Your task to perform on an android device: change alarm snooze length Image 0: 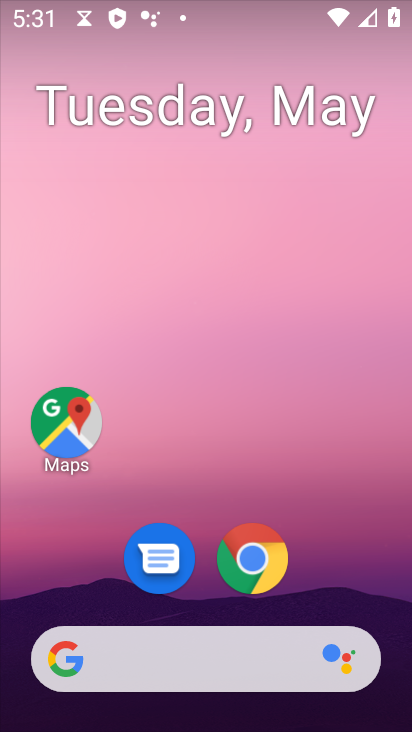
Step 0: drag from (398, 545) to (189, 67)
Your task to perform on an android device: change alarm snooze length Image 1: 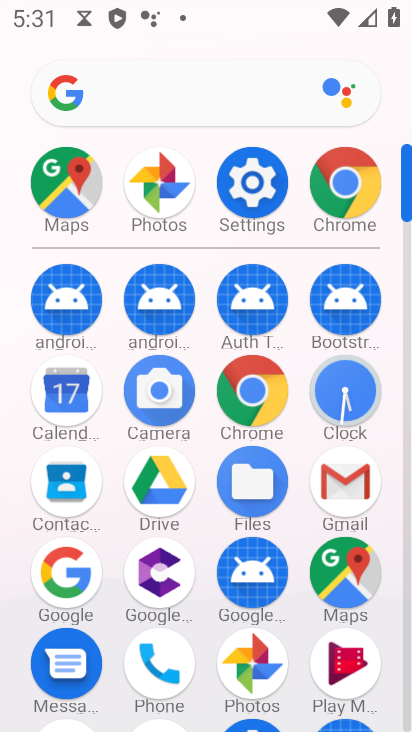
Step 1: click (339, 405)
Your task to perform on an android device: change alarm snooze length Image 2: 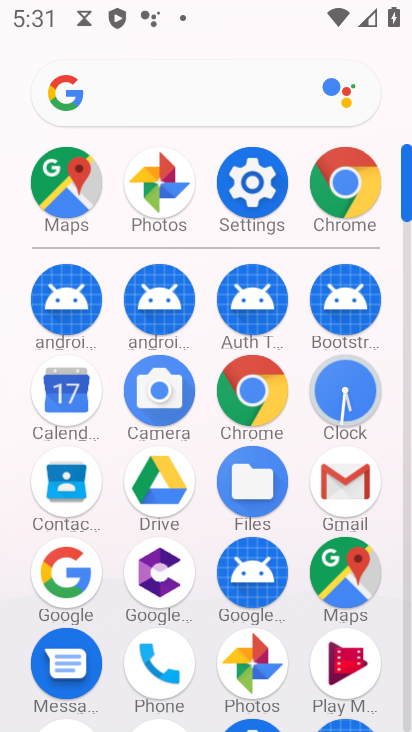
Step 2: click (358, 391)
Your task to perform on an android device: change alarm snooze length Image 3: 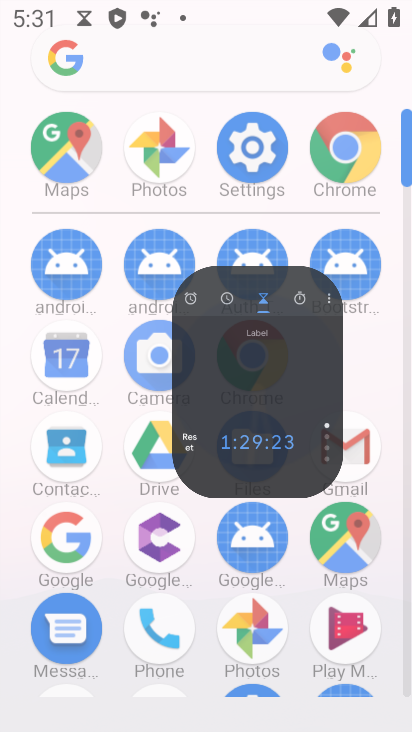
Step 3: click (358, 391)
Your task to perform on an android device: change alarm snooze length Image 4: 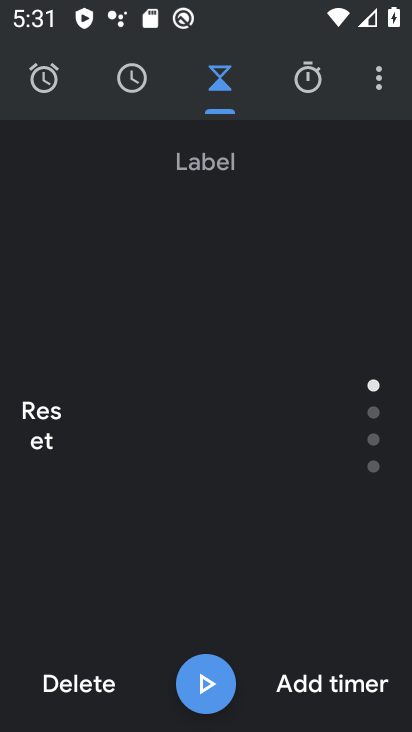
Step 4: click (378, 86)
Your task to perform on an android device: change alarm snooze length Image 5: 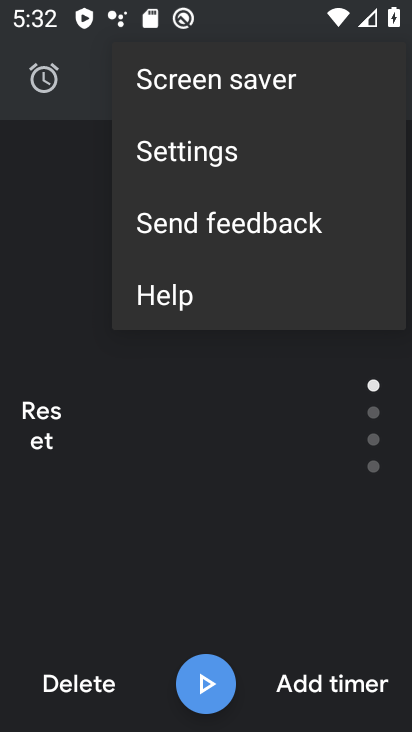
Step 5: click (187, 153)
Your task to perform on an android device: change alarm snooze length Image 6: 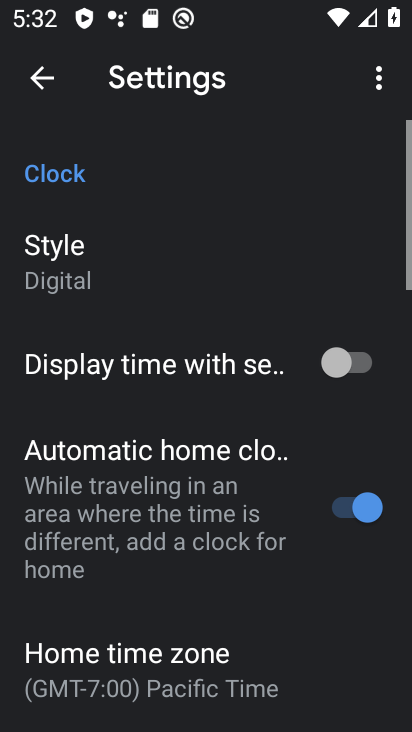
Step 6: drag from (171, 508) to (243, 124)
Your task to perform on an android device: change alarm snooze length Image 7: 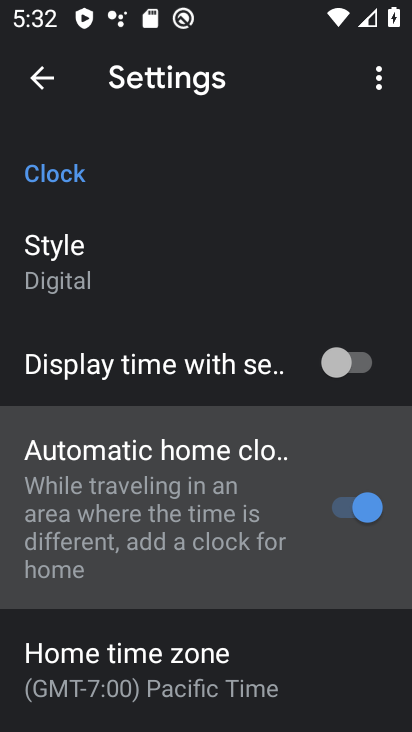
Step 7: drag from (188, 374) to (166, 40)
Your task to perform on an android device: change alarm snooze length Image 8: 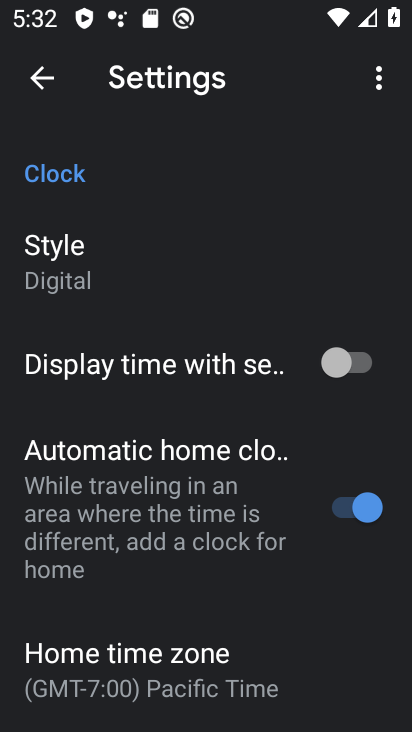
Step 8: drag from (140, 619) to (140, 292)
Your task to perform on an android device: change alarm snooze length Image 9: 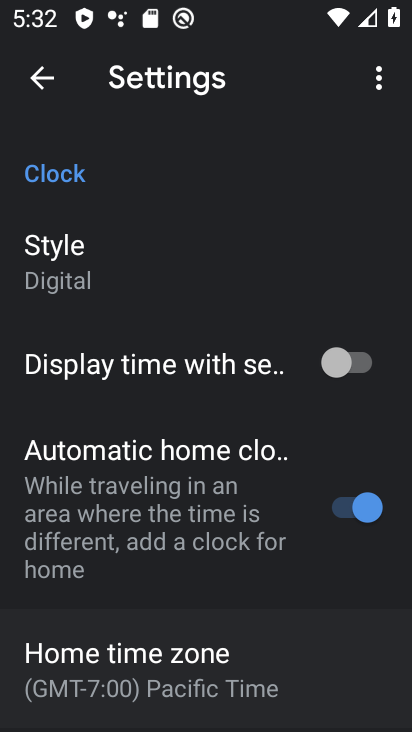
Step 9: drag from (178, 516) to (138, 279)
Your task to perform on an android device: change alarm snooze length Image 10: 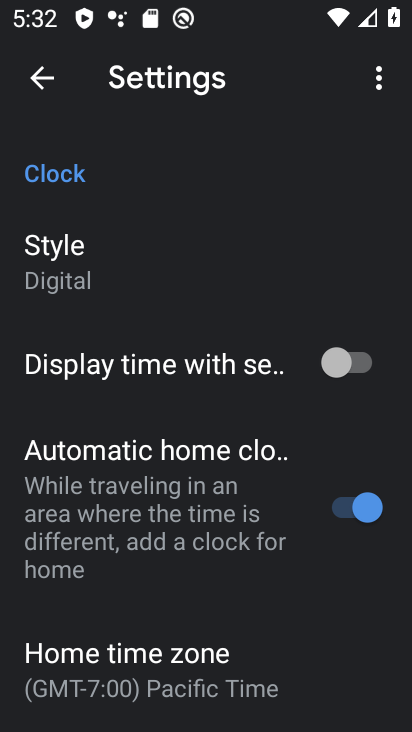
Step 10: drag from (159, 572) to (107, 210)
Your task to perform on an android device: change alarm snooze length Image 11: 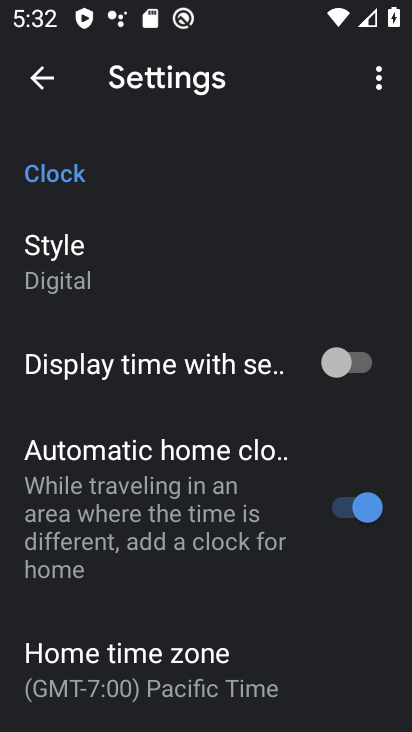
Step 11: drag from (152, 490) to (106, 173)
Your task to perform on an android device: change alarm snooze length Image 12: 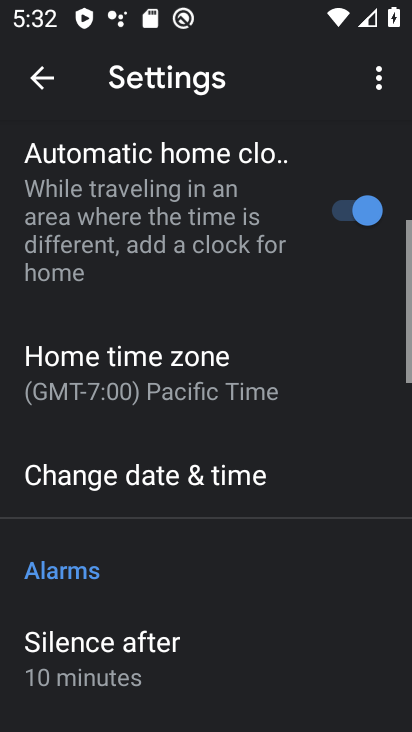
Step 12: drag from (154, 626) to (145, 151)
Your task to perform on an android device: change alarm snooze length Image 13: 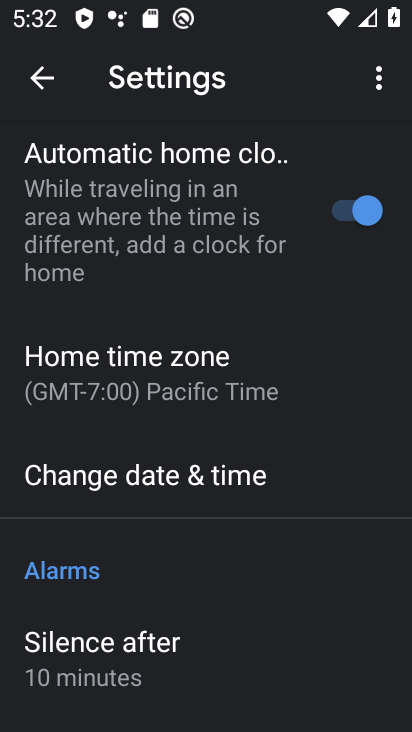
Step 13: drag from (122, 650) to (154, 247)
Your task to perform on an android device: change alarm snooze length Image 14: 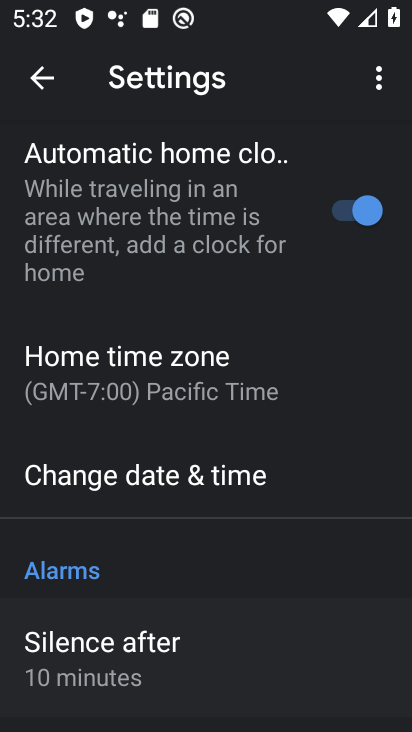
Step 14: drag from (157, 494) to (153, 168)
Your task to perform on an android device: change alarm snooze length Image 15: 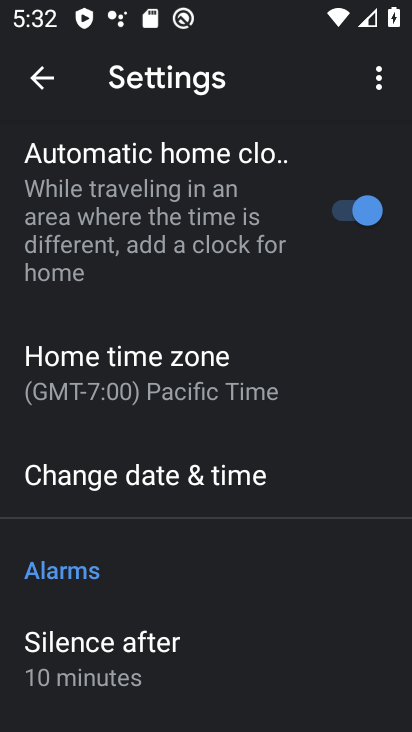
Step 15: drag from (196, 481) to (206, 217)
Your task to perform on an android device: change alarm snooze length Image 16: 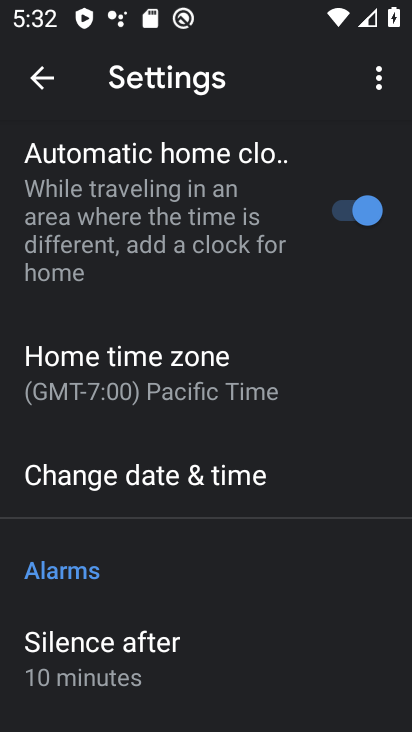
Step 16: drag from (129, 671) to (121, 172)
Your task to perform on an android device: change alarm snooze length Image 17: 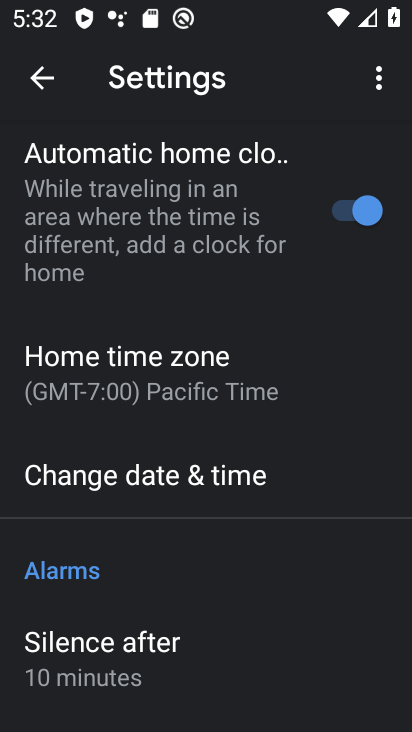
Step 17: drag from (138, 580) to (127, 220)
Your task to perform on an android device: change alarm snooze length Image 18: 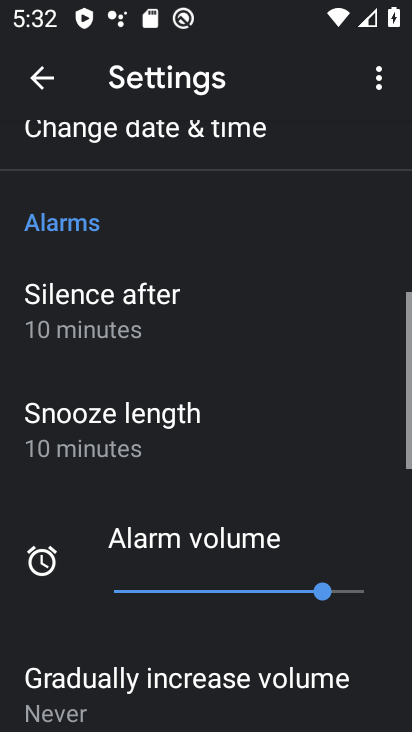
Step 18: drag from (156, 544) to (167, 141)
Your task to perform on an android device: change alarm snooze length Image 19: 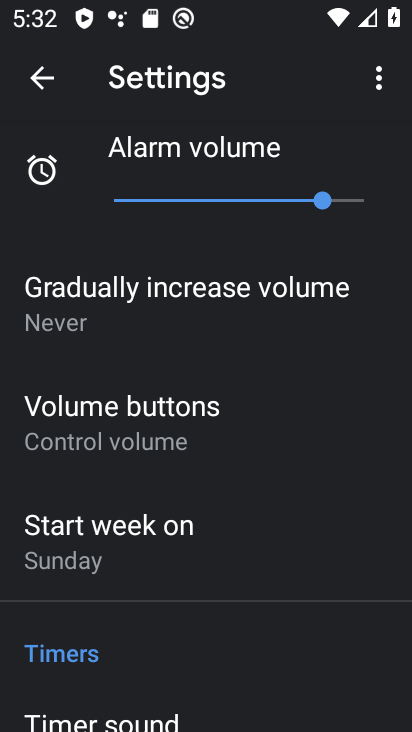
Step 19: drag from (123, 501) to (175, 54)
Your task to perform on an android device: change alarm snooze length Image 20: 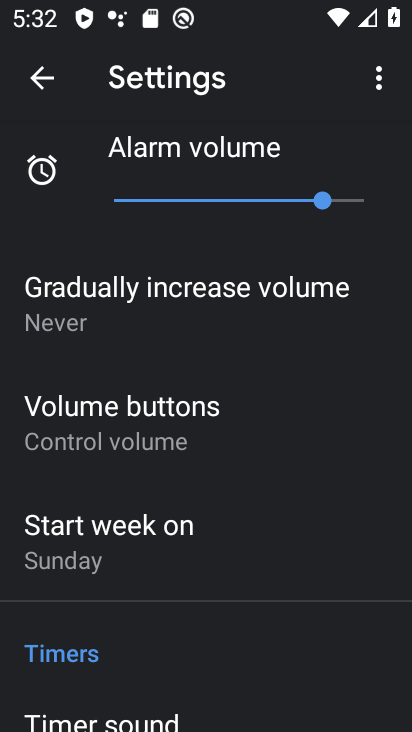
Step 20: drag from (171, 476) to (195, 153)
Your task to perform on an android device: change alarm snooze length Image 21: 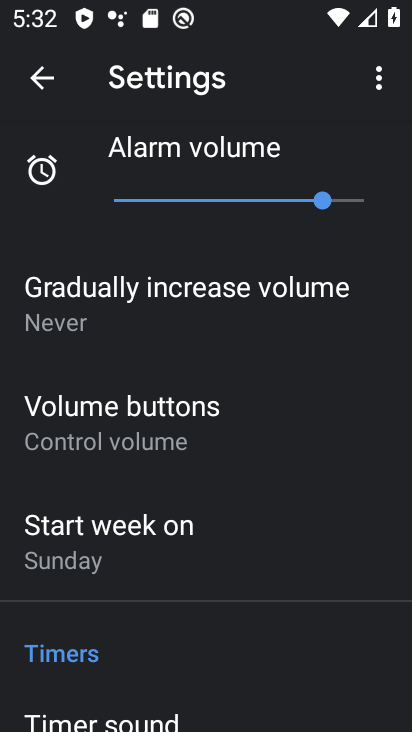
Step 21: click (185, 5)
Your task to perform on an android device: change alarm snooze length Image 22: 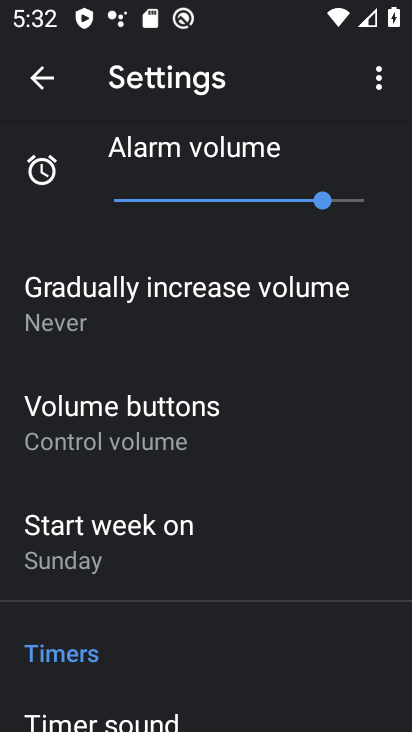
Step 22: drag from (207, 462) to (249, 81)
Your task to perform on an android device: change alarm snooze length Image 23: 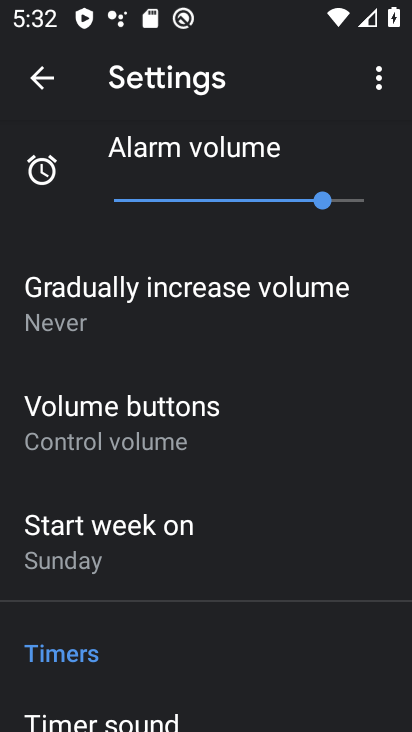
Step 23: drag from (168, 475) to (218, 166)
Your task to perform on an android device: change alarm snooze length Image 24: 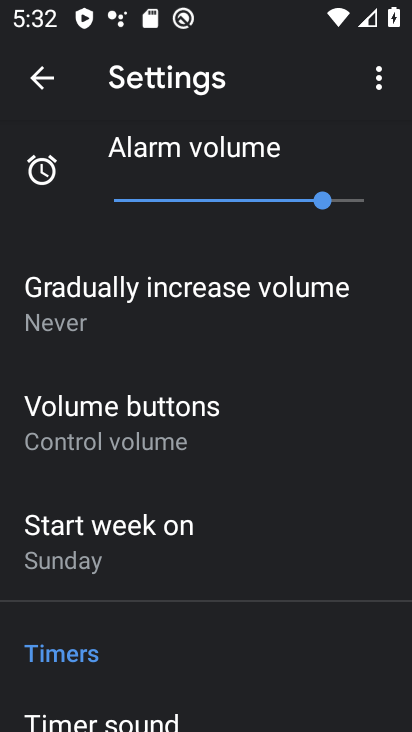
Step 24: drag from (223, 520) to (242, 52)
Your task to perform on an android device: change alarm snooze length Image 25: 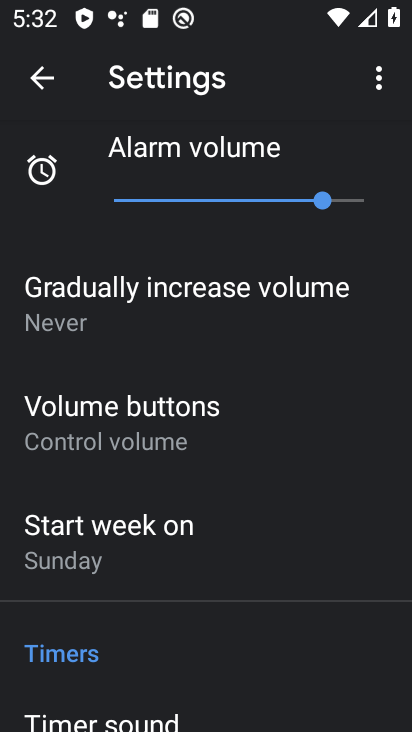
Step 25: drag from (257, 518) to (267, 101)
Your task to perform on an android device: change alarm snooze length Image 26: 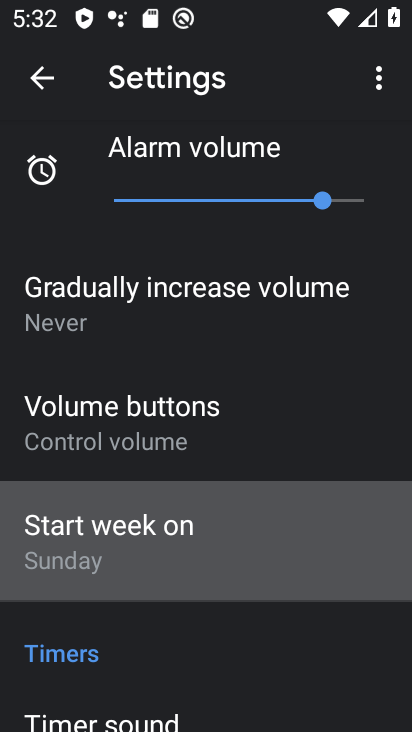
Step 26: drag from (175, 516) to (198, 9)
Your task to perform on an android device: change alarm snooze length Image 27: 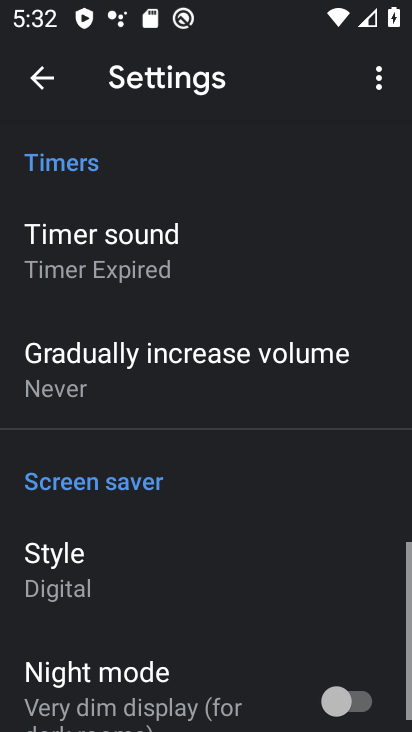
Step 27: drag from (133, 456) to (165, 202)
Your task to perform on an android device: change alarm snooze length Image 28: 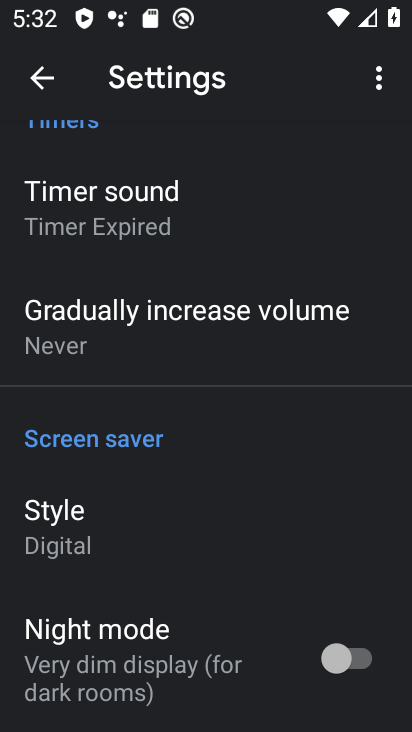
Step 28: drag from (129, 179) to (213, 578)
Your task to perform on an android device: change alarm snooze length Image 29: 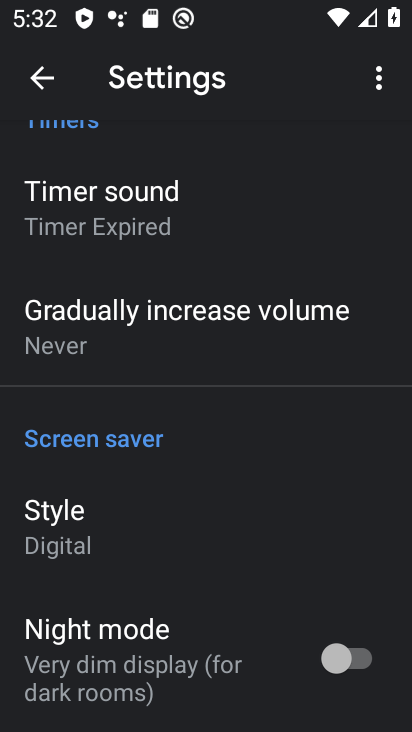
Step 29: drag from (139, 241) to (200, 561)
Your task to perform on an android device: change alarm snooze length Image 30: 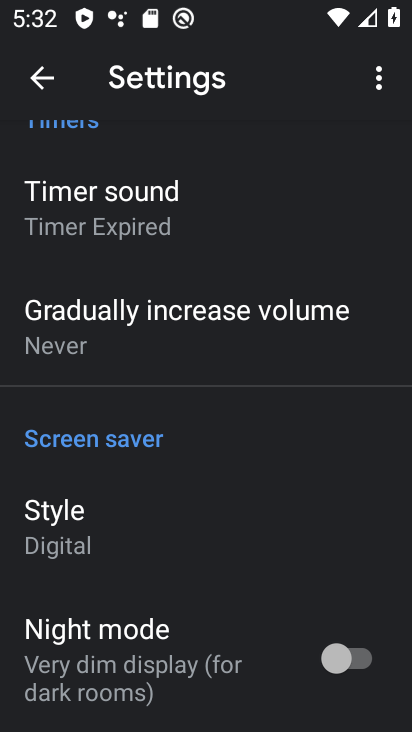
Step 30: drag from (178, 234) to (225, 561)
Your task to perform on an android device: change alarm snooze length Image 31: 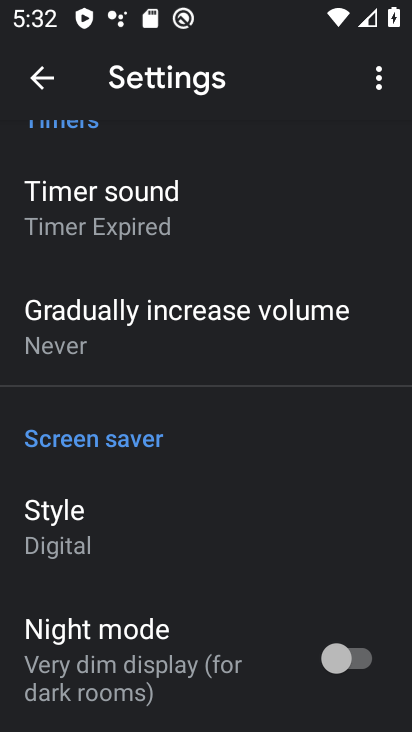
Step 31: drag from (141, 207) to (211, 575)
Your task to perform on an android device: change alarm snooze length Image 32: 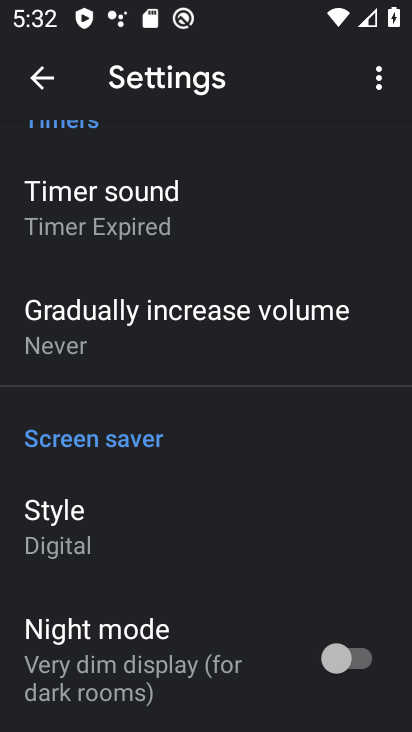
Step 32: drag from (167, 228) to (186, 418)
Your task to perform on an android device: change alarm snooze length Image 33: 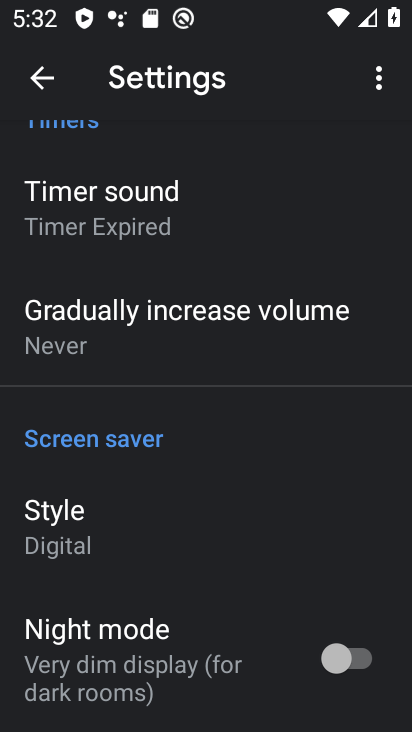
Step 33: drag from (136, 235) to (181, 517)
Your task to perform on an android device: change alarm snooze length Image 34: 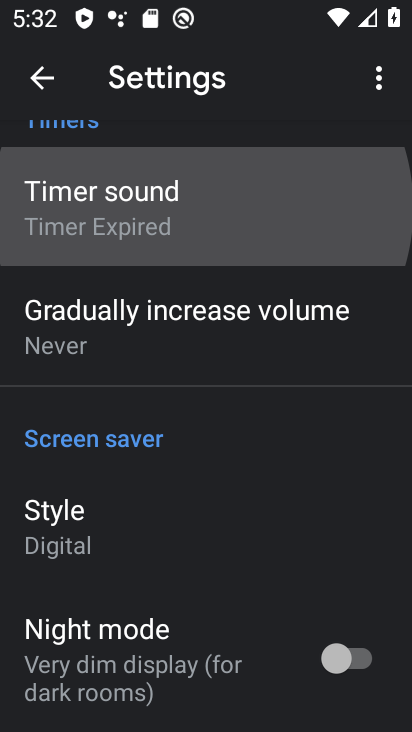
Step 34: drag from (219, 279) to (278, 592)
Your task to perform on an android device: change alarm snooze length Image 35: 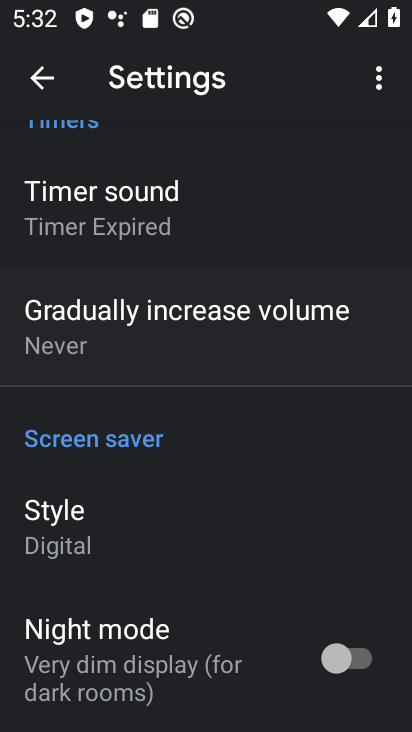
Step 35: drag from (172, 272) to (171, 518)
Your task to perform on an android device: change alarm snooze length Image 36: 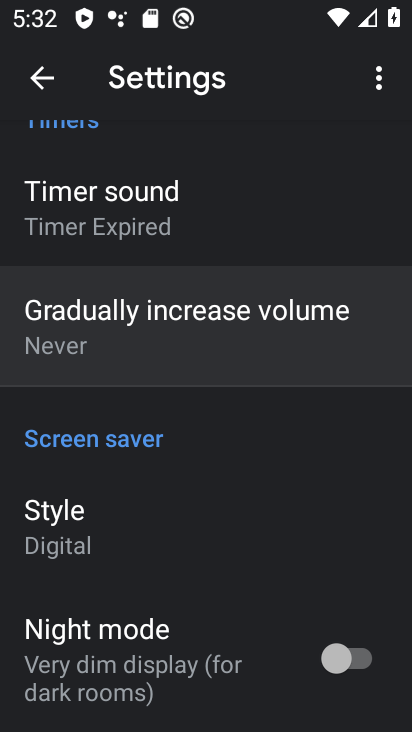
Step 36: drag from (154, 310) to (196, 600)
Your task to perform on an android device: change alarm snooze length Image 37: 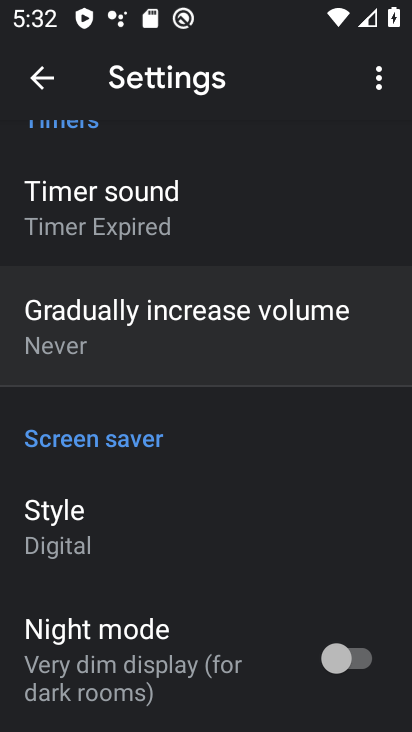
Step 37: drag from (111, 239) to (131, 479)
Your task to perform on an android device: change alarm snooze length Image 38: 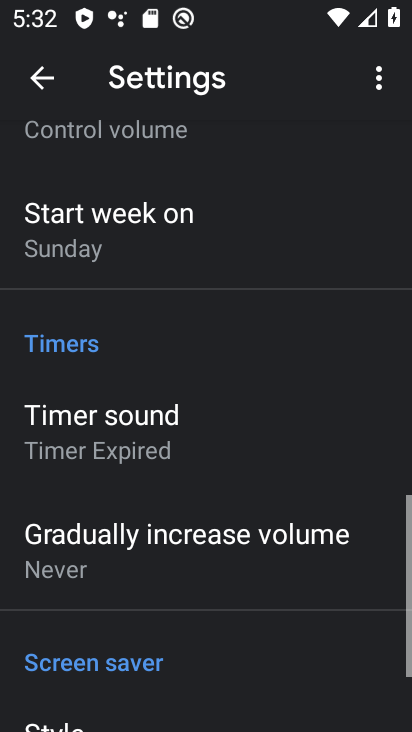
Step 38: drag from (100, 258) to (104, 618)
Your task to perform on an android device: change alarm snooze length Image 39: 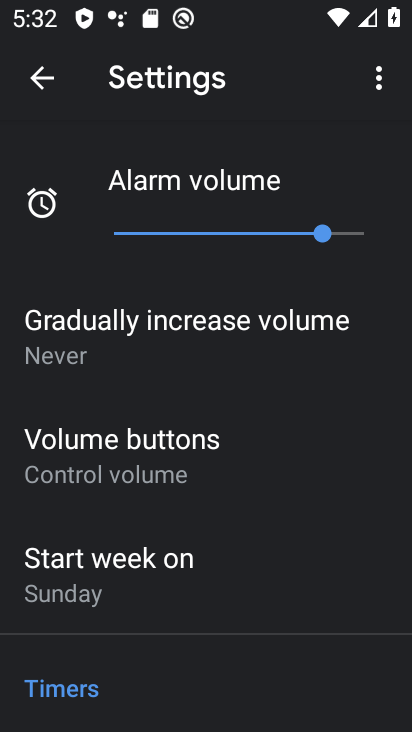
Step 39: drag from (148, 261) to (190, 533)
Your task to perform on an android device: change alarm snooze length Image 40: 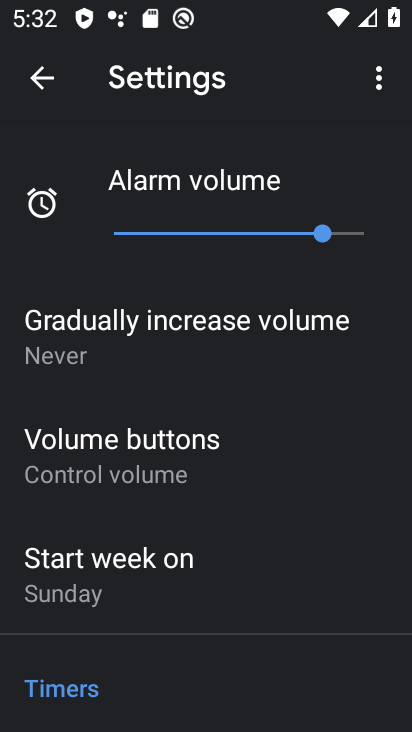
Step 40: drag from (157, 321) to (183, 609)
Your task to perform on an android device: change alarm snooze length Image 41: 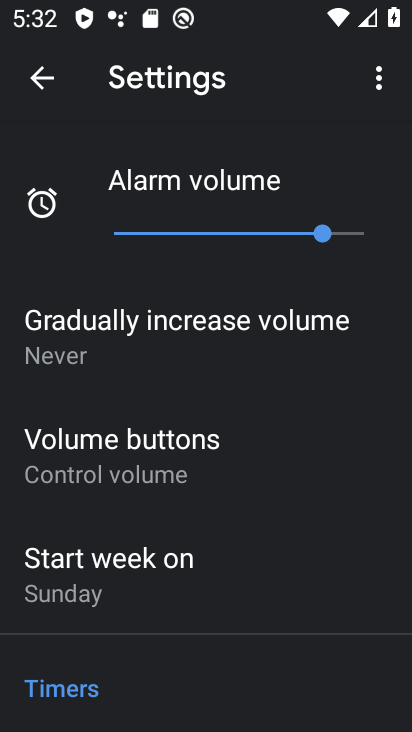
Step 41: drag from (168, 323) to (167, 573)
Your task to perform on an android device: change alarm snooze length Image 42: 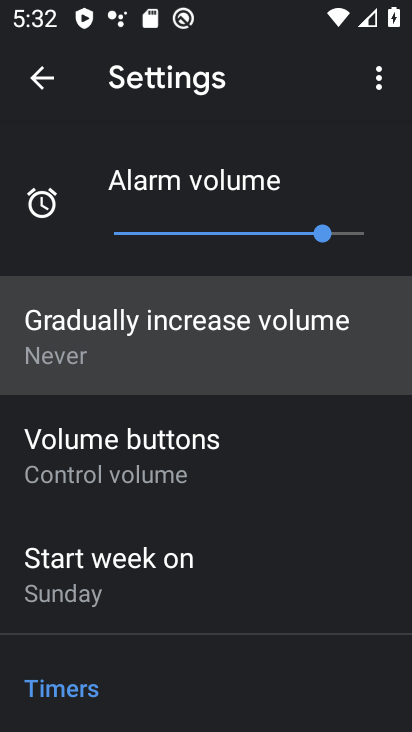
Step 42: drag from (104, 275) to (175, 584)
Your task to perform on an android device: change alarm snooze length Image 43: 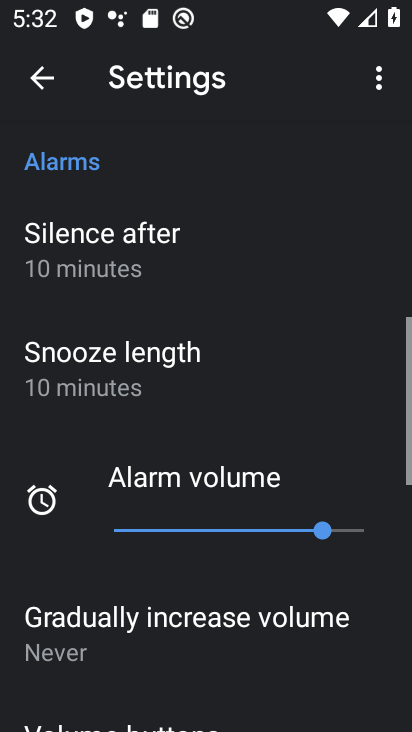
Step 43: drag from (141, 285) to (207, 664)
Your task to perform on an android device: change alarm snooze length Image 44: 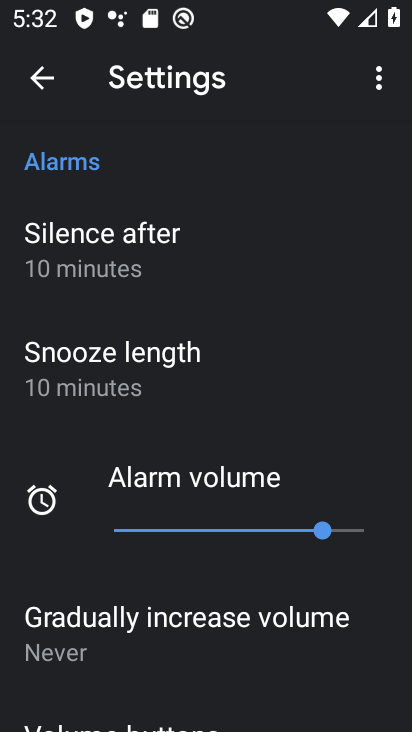
Step 44: click (103, 375)
Your task to perform on an android device: change alarm snooze length Image 45: 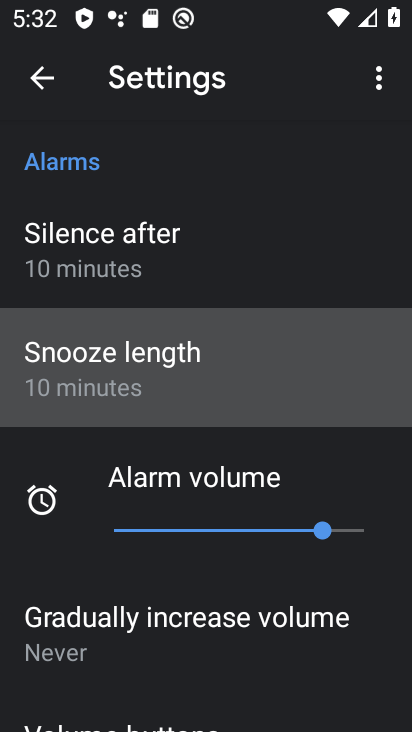
Step 45: click (103, 375)
Your task to perform on an android device: change alarm snooze length Image 46: 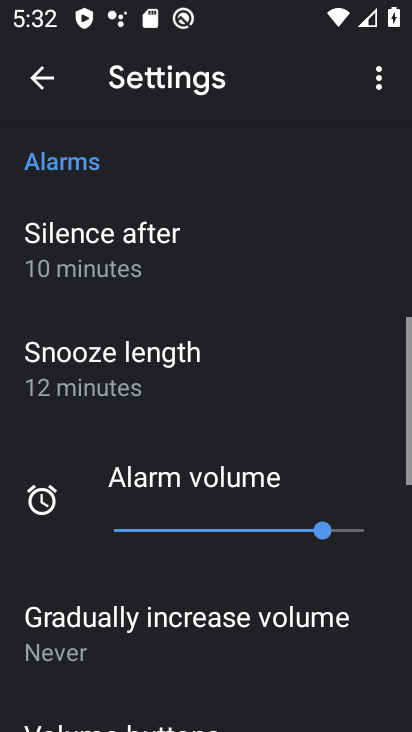
Step 46: click (60, 358)
Your task to perform on an android device: change alarm snooze length Image 47: 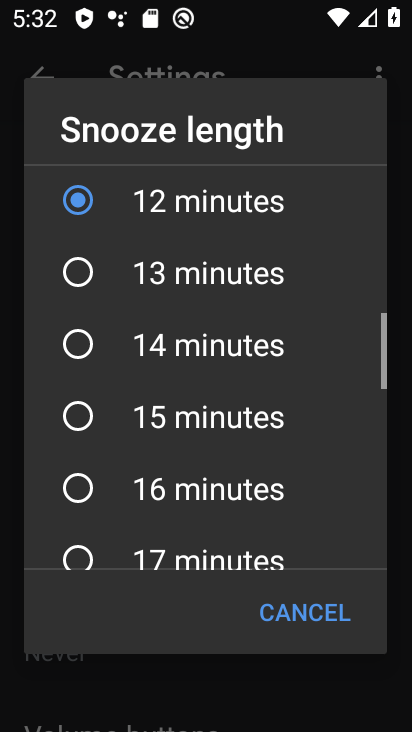
Step 47: click (73, 410)
Your task to perform on an android device: change alarm snooze length Image 48: 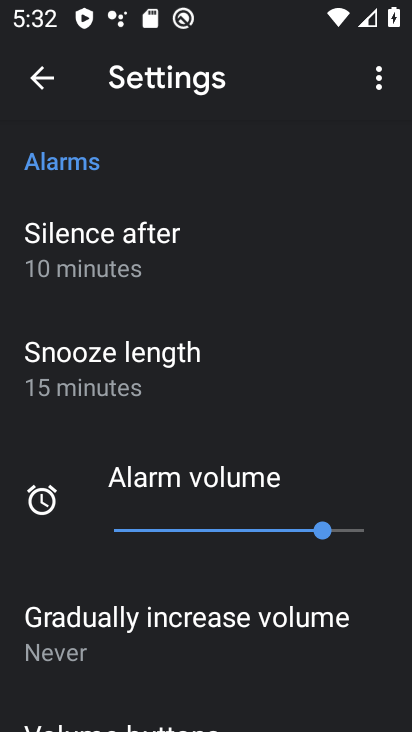
Step 48: task complete